Your task to perform on an android device: Open Google Chrome and open the bookmarks view Image 0: 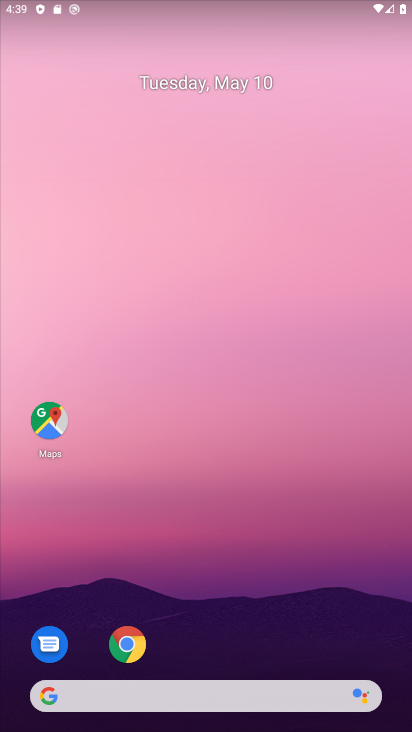
Step 0: drag from (227, 655) to (282, 82)
Your task to perform on an android device: Open Google Chrome and open the bookmarks view Image 1: 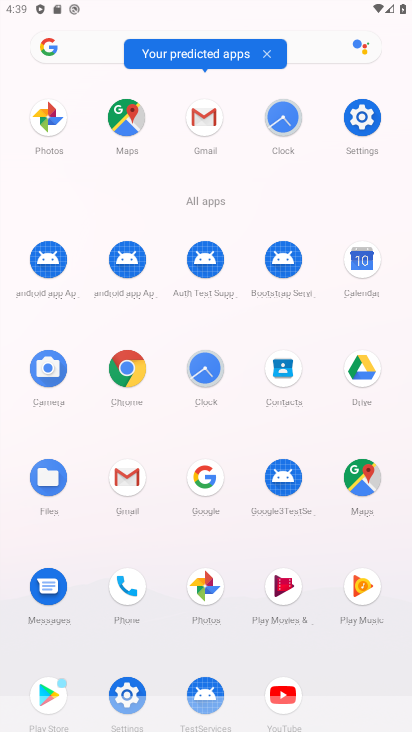
Step 1: click (122, 367)
Your task to perform on an android device: Open Google Chrome and open the bookmarks view Image 2: 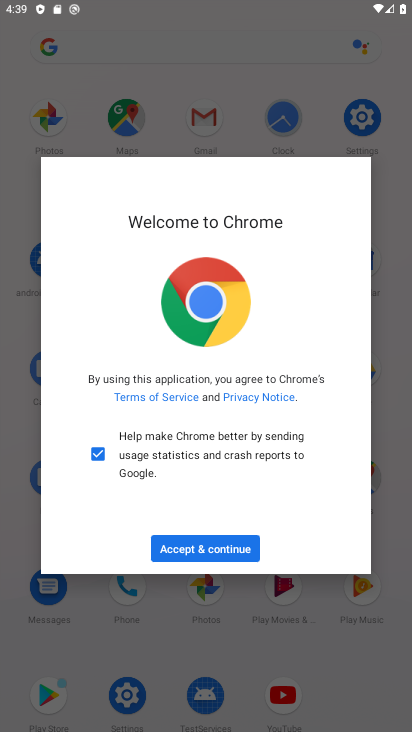
Step 2: click (213, 541)
Your task to perform on an android device: Open Google Chrome and open the bookmarks view Image 3: 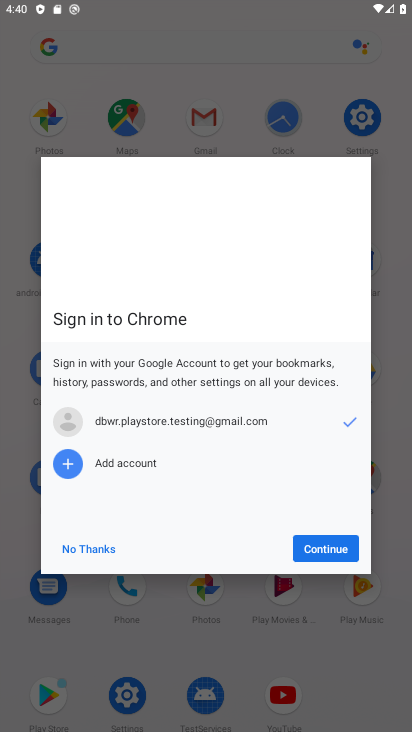
Step 3: click (342, 552)
Your task to perform on an android device: Open Google Chrome and open the bookmarks view Image 4: 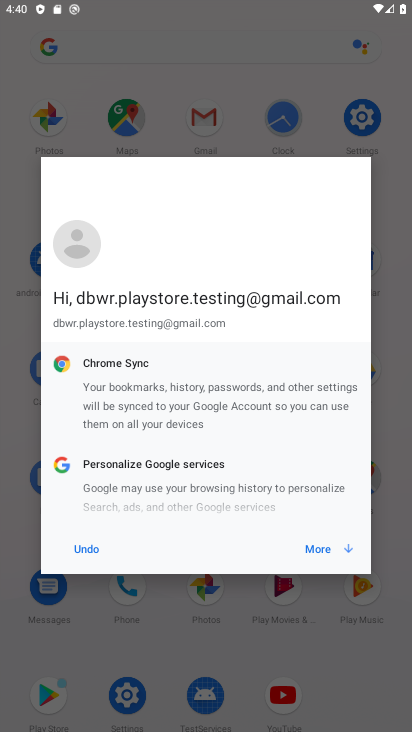
Step 4: click (337, 548)
Your task to perform on an android device: Open Google Chrome and open the bookmarks view Image 5: 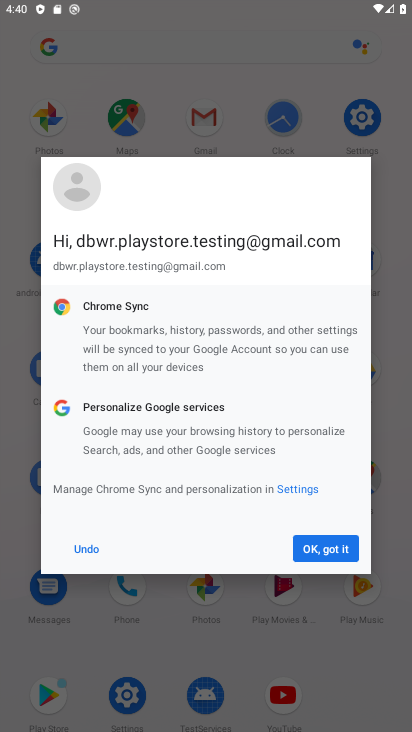
Step 5: click (337, 548)
Your task to perform on an android device: Open Google Chrome and open the bookmarks view Image 6: 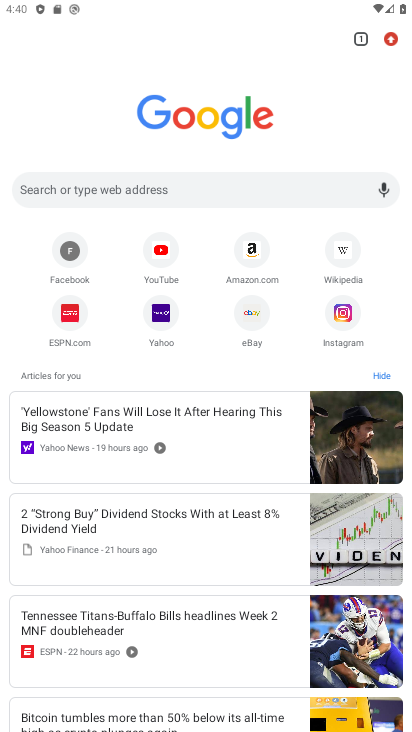
Step 6: click (391, 35)
Your task to perform on an android device: Open Google Chrome and open the bookmarks view Image 7: 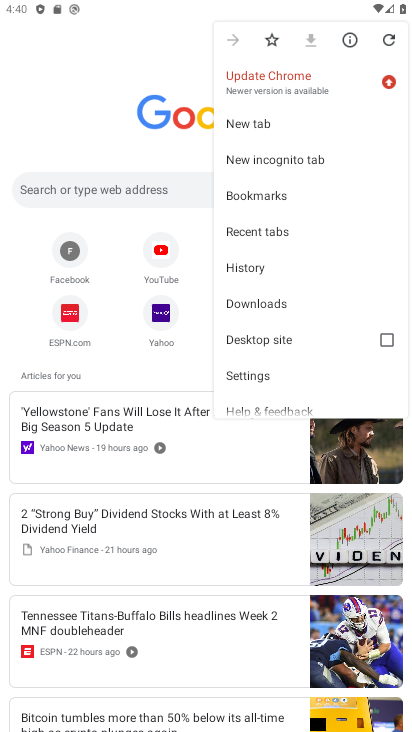
Step 7: click (273, 368)
Your task to perform on an android device: Open Google Chrome and open the bookmarks view Image 8: 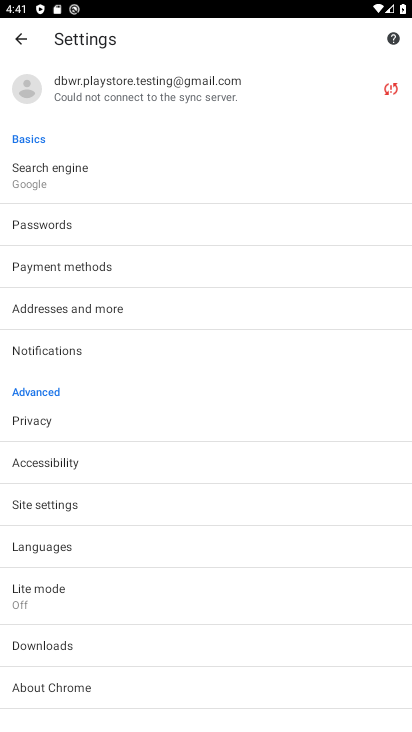
Step 8: click (26, 39)
Your task to perform on an android device: Open Google Chrome and open the bookmarks view Image 9: 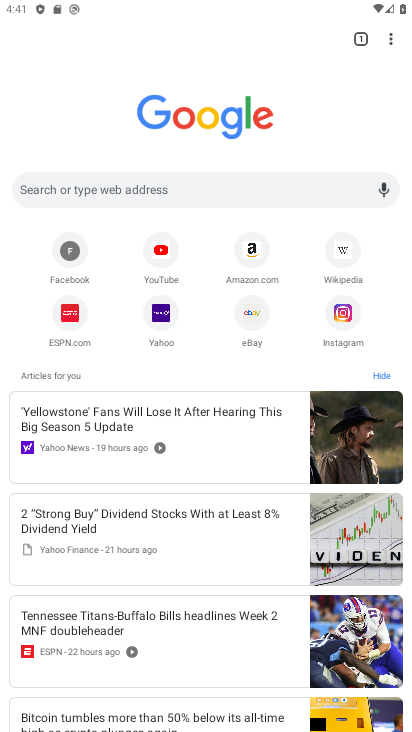
Step 9: click (391, 34)
Your task to perform on an android device: Open Google Chrome and open the bookmarks view Image 10: 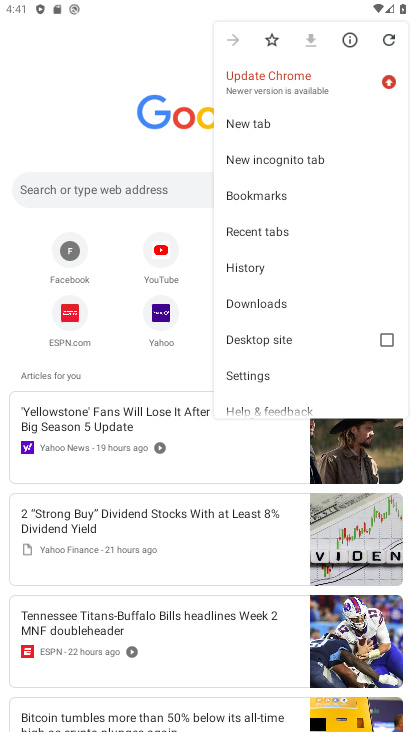
Step 10: click (295, 193)
Your task to perform on an android device: Open Google Chrome and open the bookmarks view Image 11: 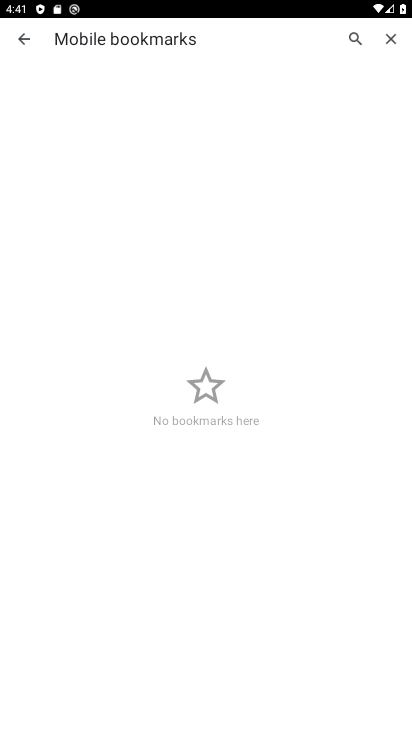
Step 11: task complete